Your task to perform on an android device: Show me recent news Image 0: 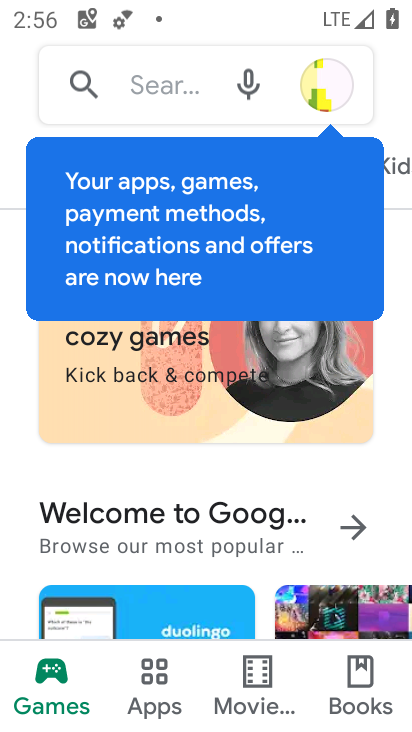
Step 0: press home button
Your task to perform on an android device: Show me recent news Image 1: 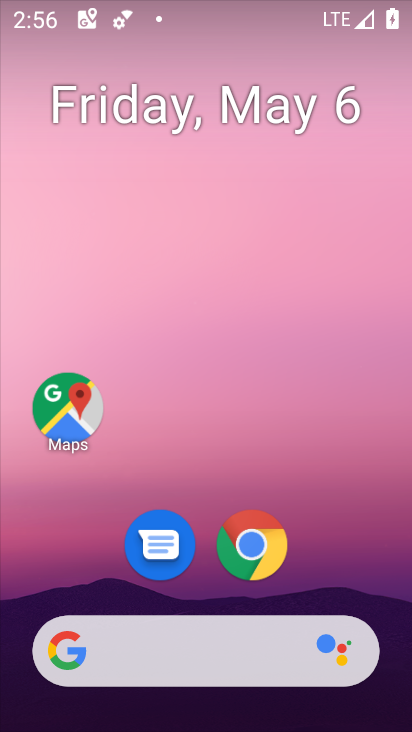
Step 1: task complete